Your task to perform on an android device: change the clock display to digital Image 0: 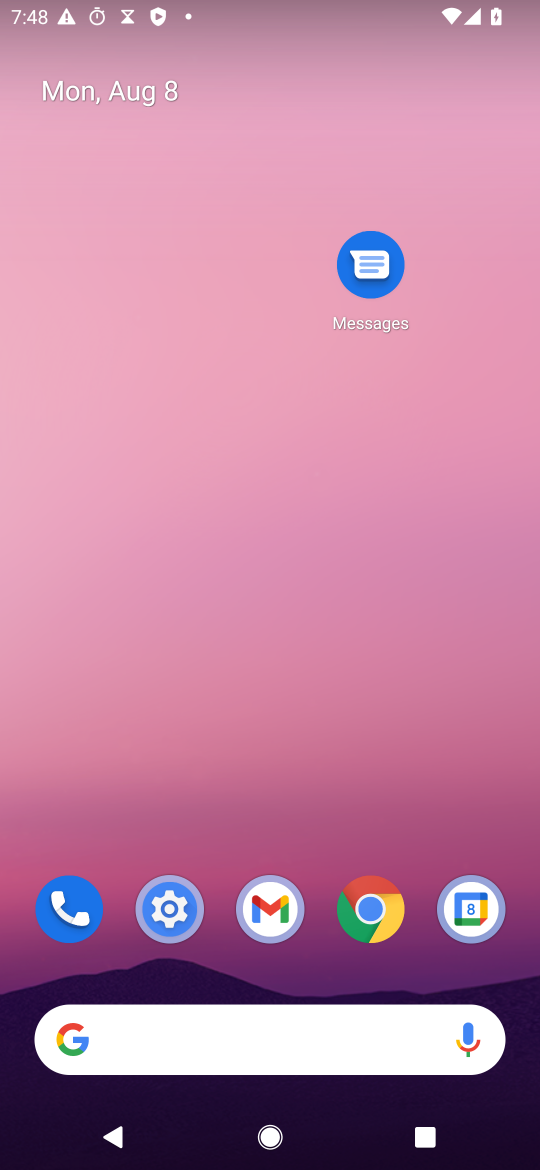
Step 0: drag from (284, 935) to (425, 4)
Your task to perform on an android device: change the clock display to digital Image 1: 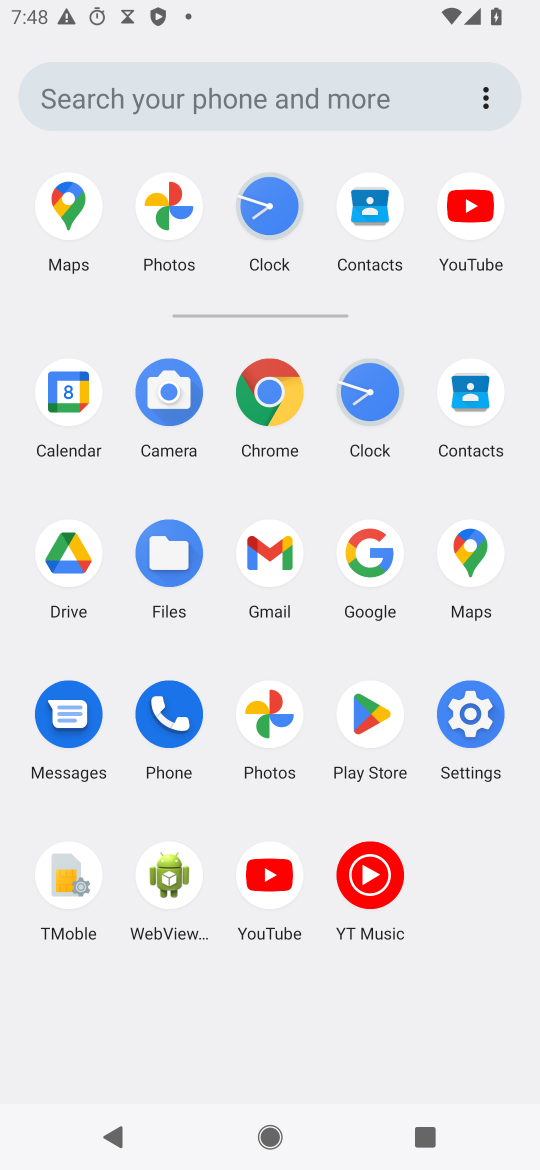
Step 1: click (273, 207)
Your task to perform on an android device: change the clock display to digital Image 2: 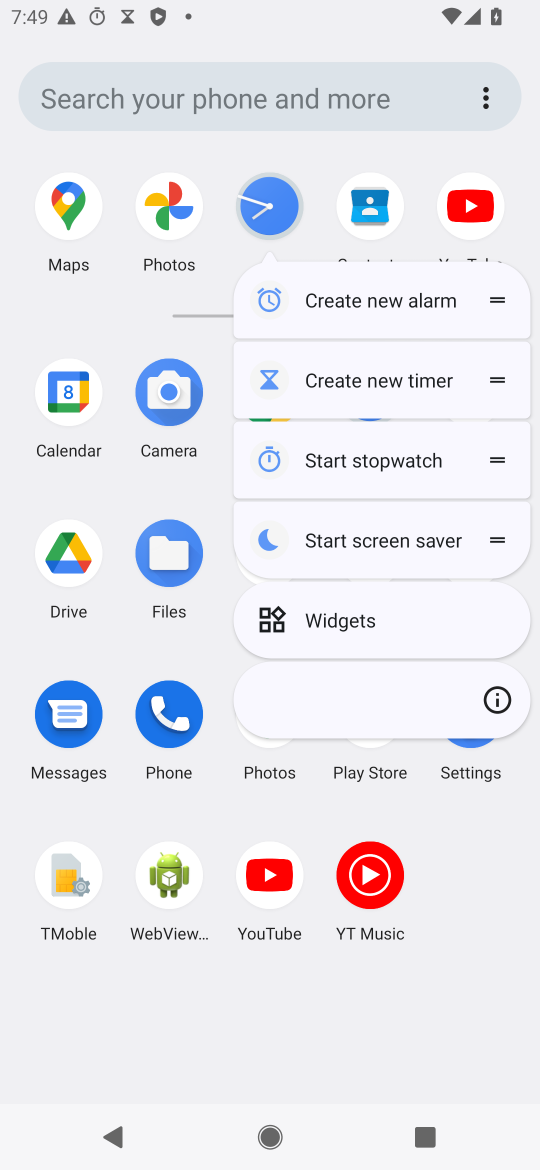
Step 2: click (273, 208)
Your task to perform on an android device: change the clock display to digital Image 3: 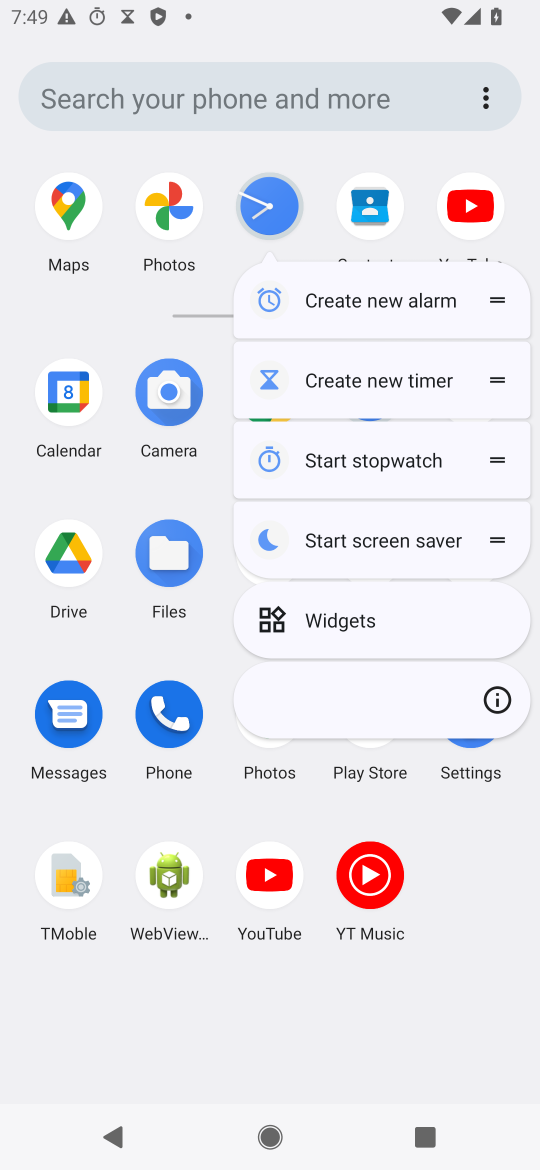
Step 3: click (267, 208)
Your task to perform on an android device: change the clock display to digital Image 4: 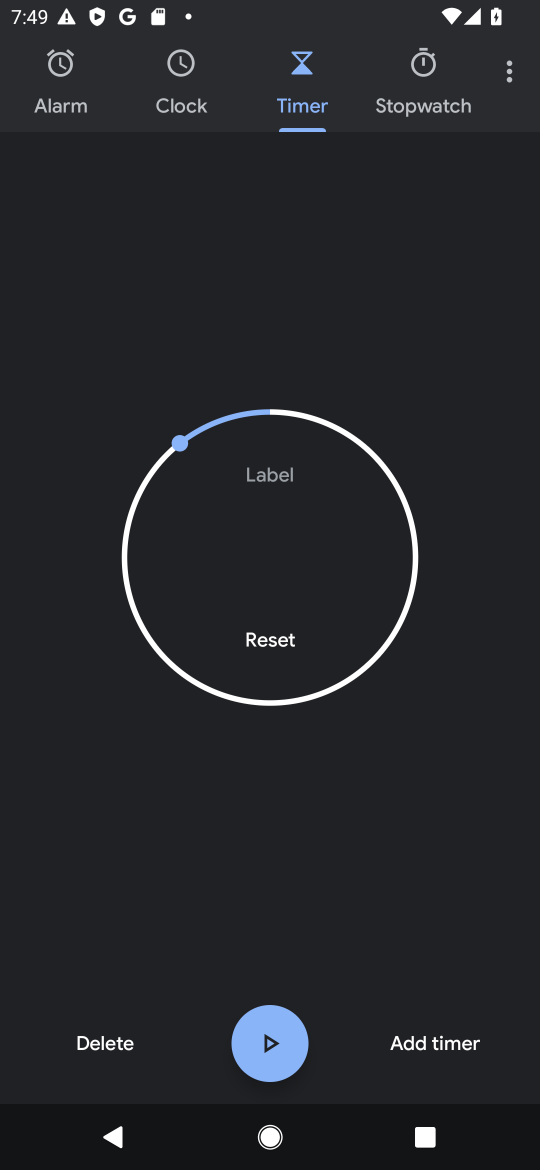
Step 4: click (511, 70)
Your task to perform on an android device: change the clock display to digital Image 5: 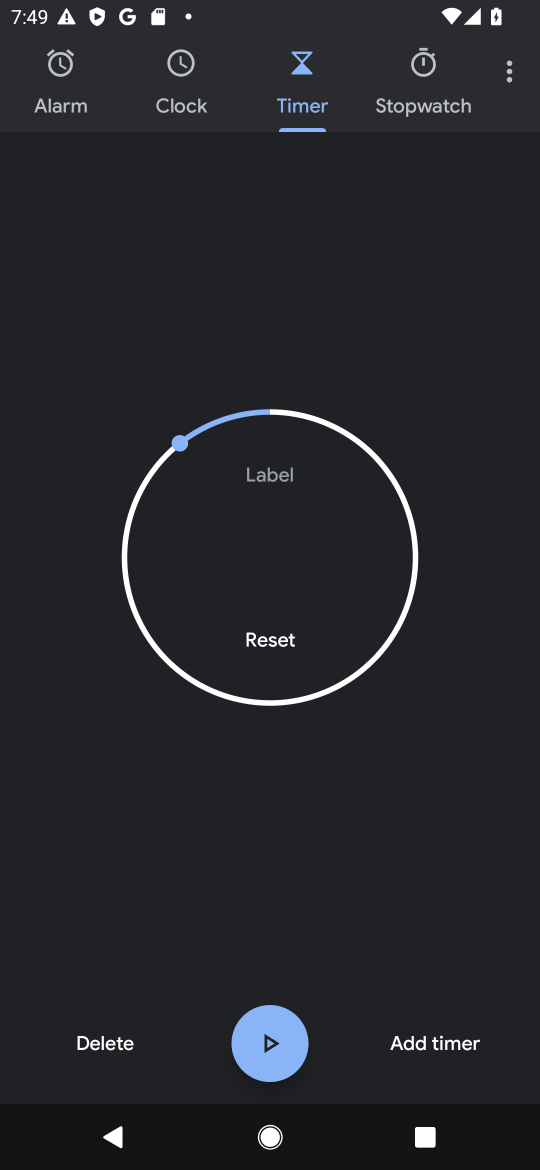
Step 5: click (504, 91)
Your task to perform on an android device: change the clock display to digital Image 6: 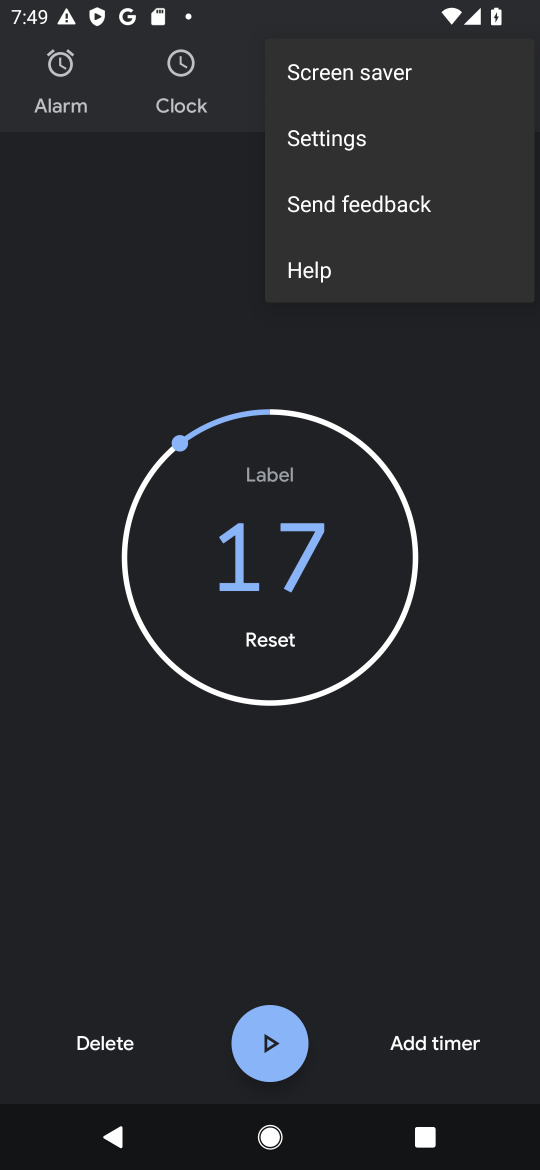
Step 6: click (342, 136)
Your task to perform on an android device: change the clock display to digital Image 7: 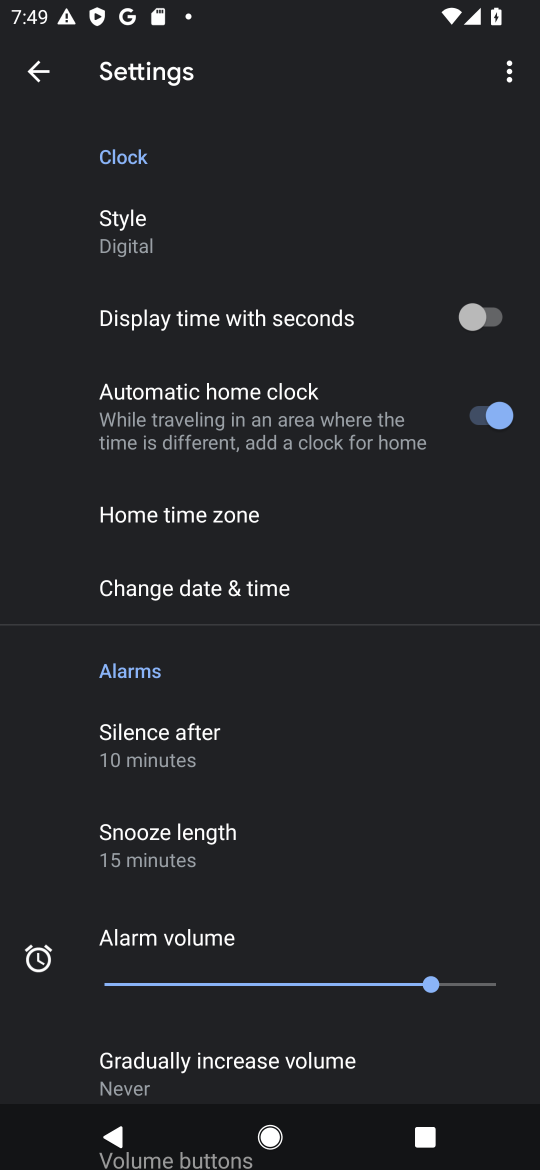
Step 7: task complete